Your task to perform on an android device: Go to privacy settings Image 0: 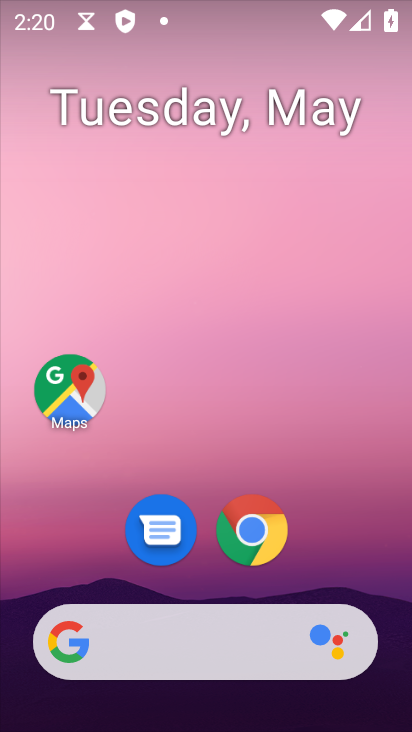
Step 0: drag from (190, 578) to (269, 100)
Your task to perform on an android device: Go to privacy settings Image 1: 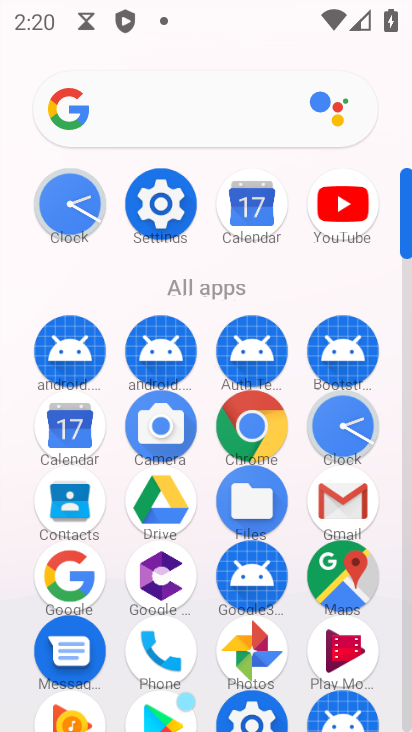
Step 1: click (129, 211)
Your task to perform on an android device: Go to privacy settings Image 2: 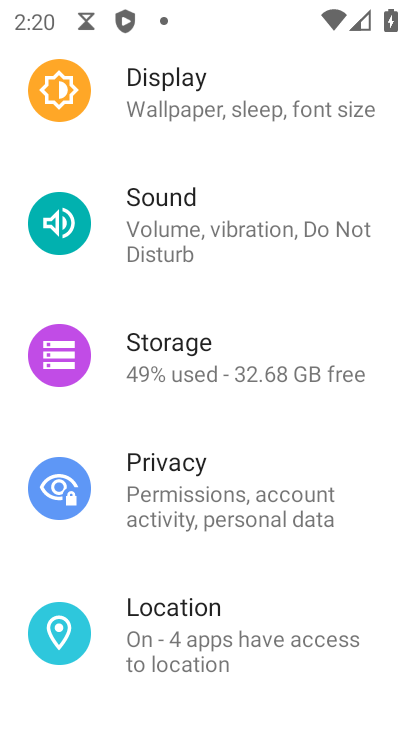
Step 2: click (166, 493)
Your task to perform on an android device: Go to privacy settings Image 3: 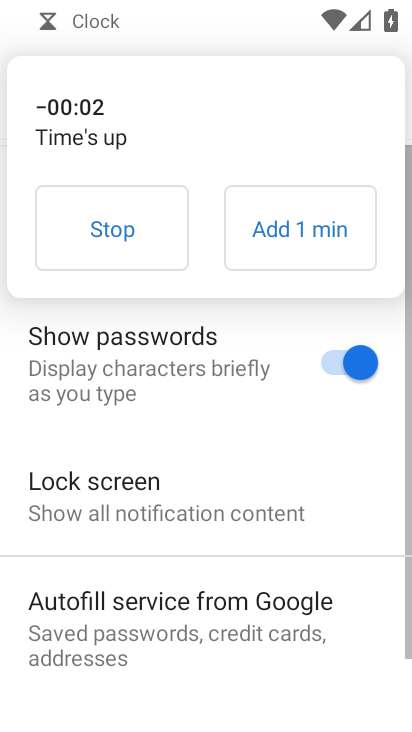
Step 3: click (168, 215)
Your task to perform on an android device: Go to privacy settings Image 4: 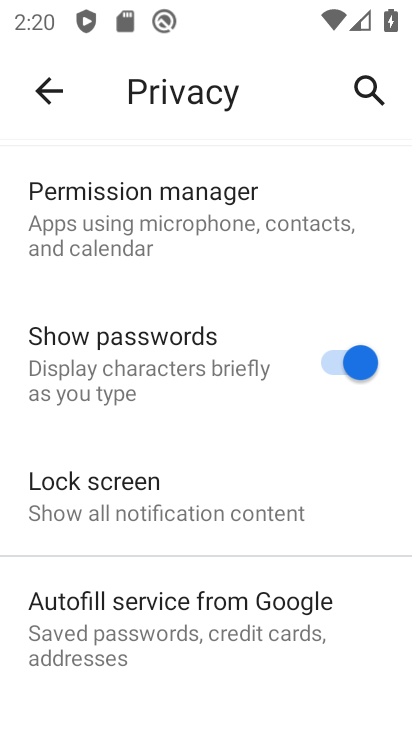
Step 4: task complete